Your task to perform on an android device: Open settings on Google Maps Image 0: 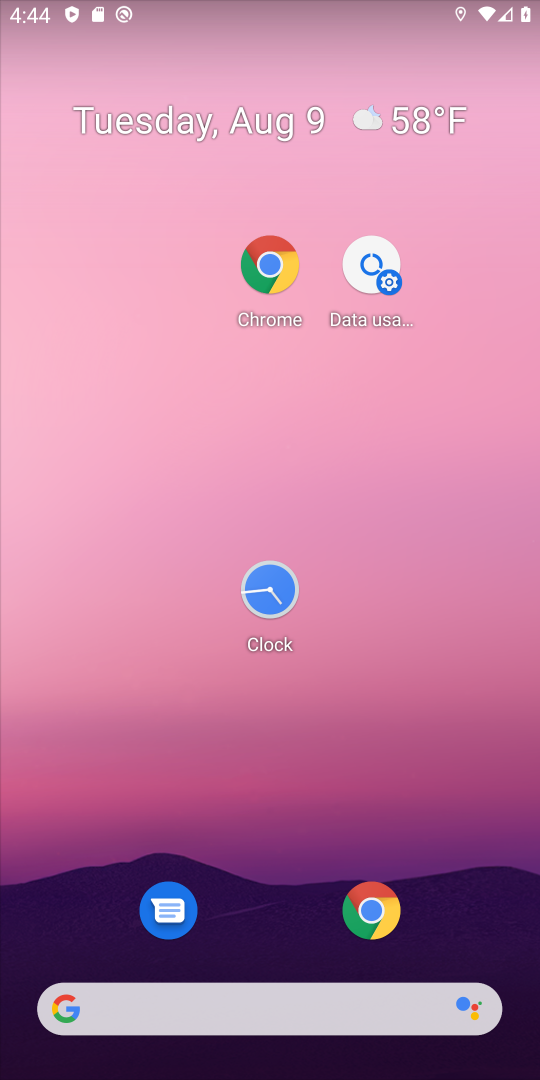
Step 0: click (270, 321)
Your task to perform on an android device: Open settings on Google Maps Image 1: 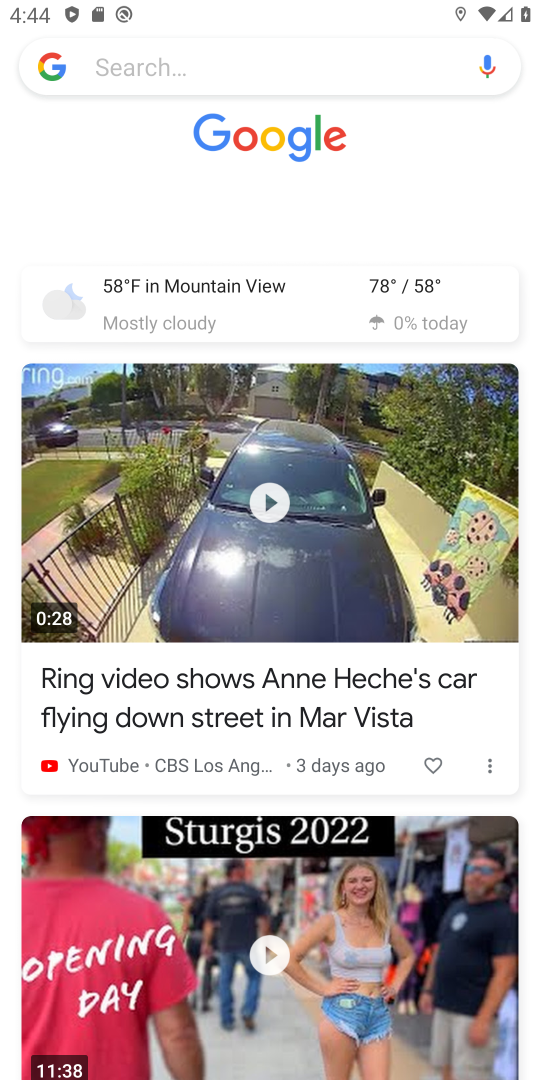
Step 1: press back button
Your task to perform on an android device: Open settings on Google Maps Image 2: 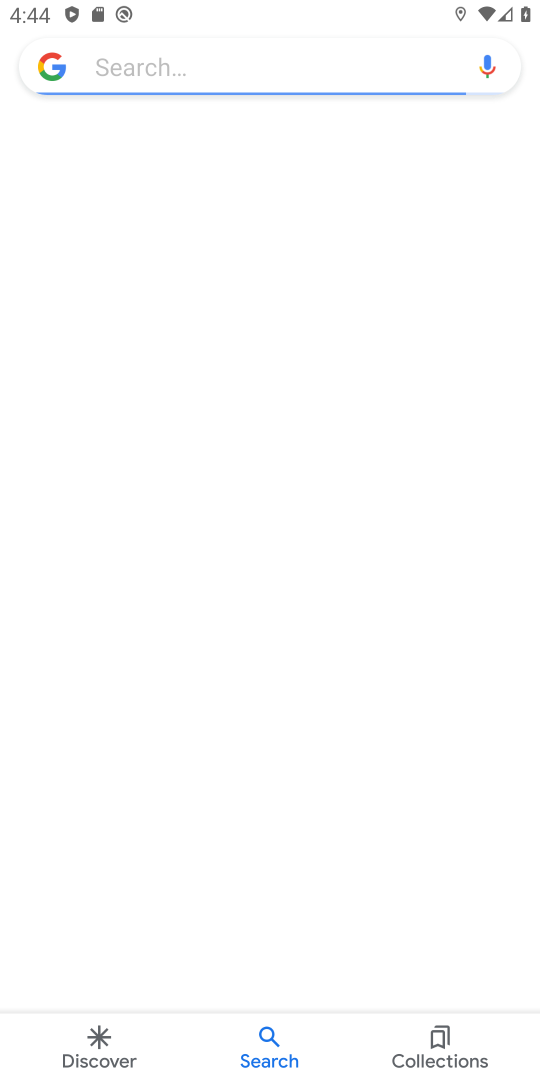
Step 2: press back button
Your task to perform on an android device: Open settings on Google Maps Image 3: 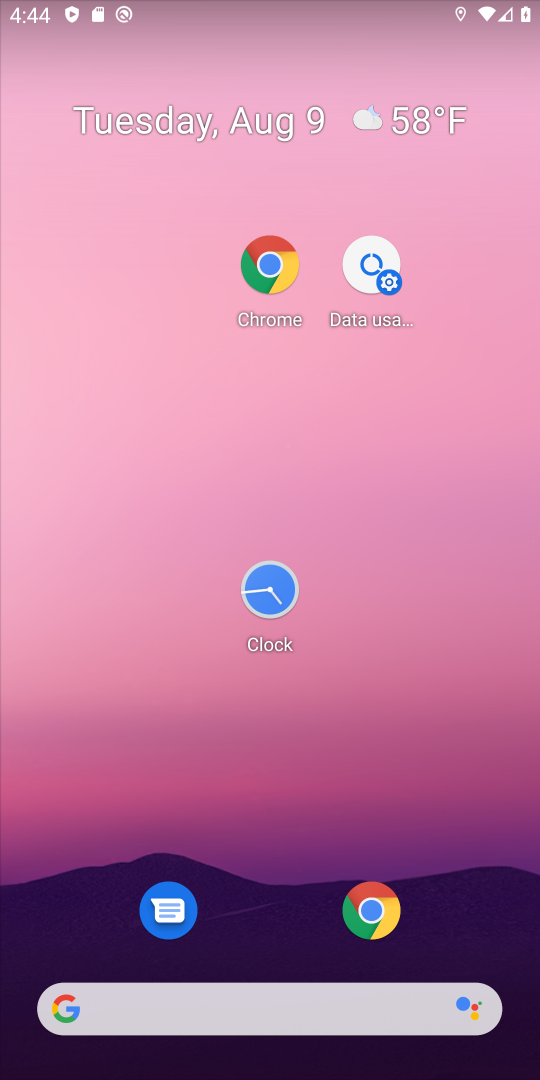
Step 3: press home button
Your task to perform on an android device: Open settings on Google Maps Image 4: 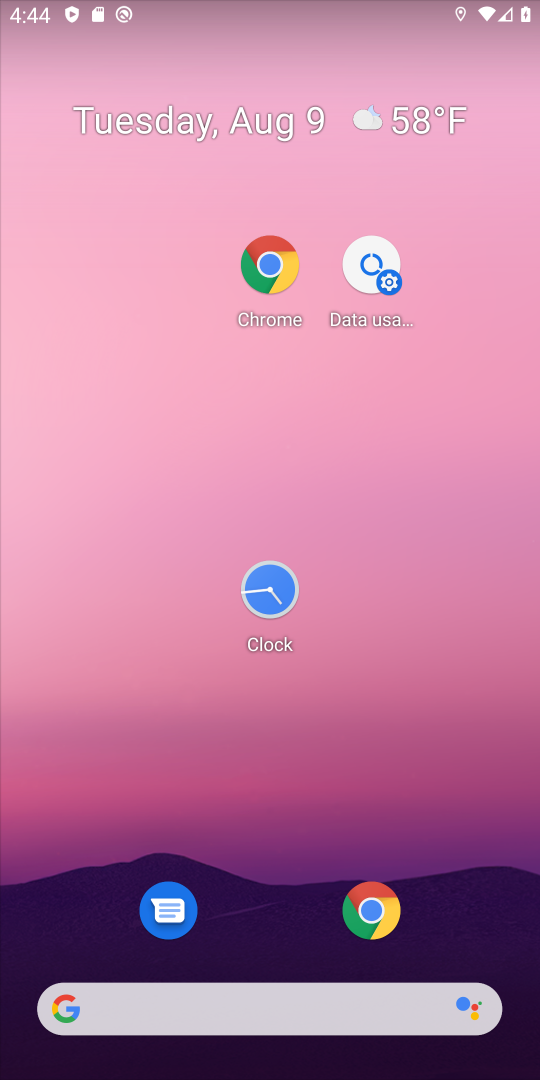
Step 4: drag from (333, 943) to (281, 309)
Your task to perform on an android device: Open settings on Google Maps Image 5: 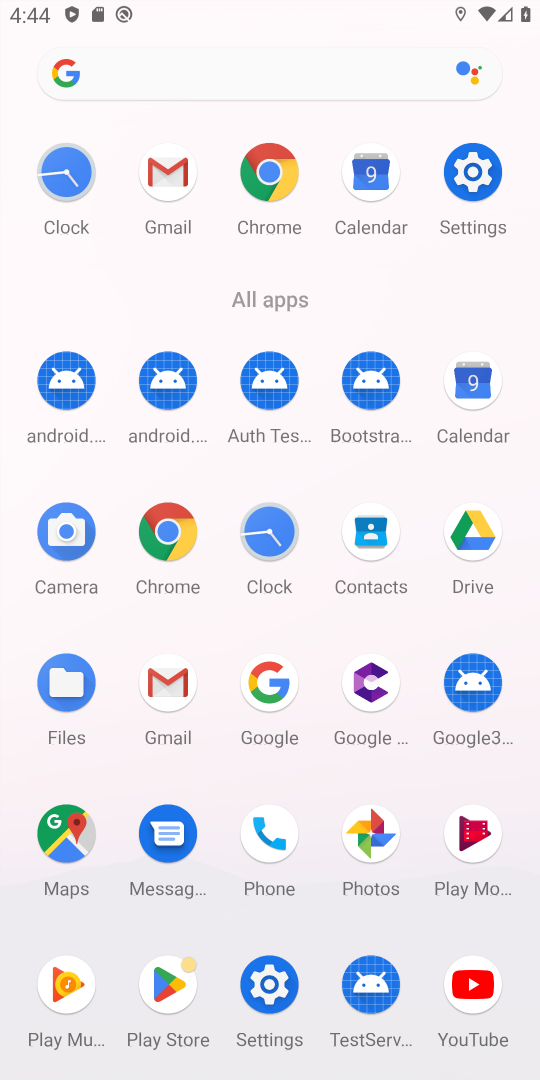
Step 5: click (59, 812)
Your task to perform on an android device: Open settings on Google Maps Image 6: 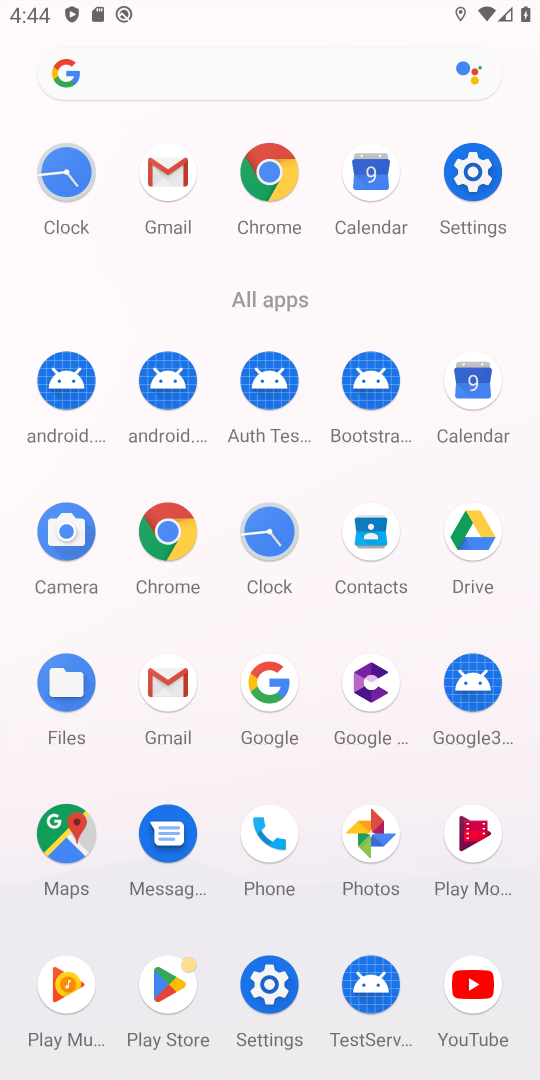
Step 6: click (58, 813)
Your task to perform on an android device: Open settings on Google Maps Image 7: 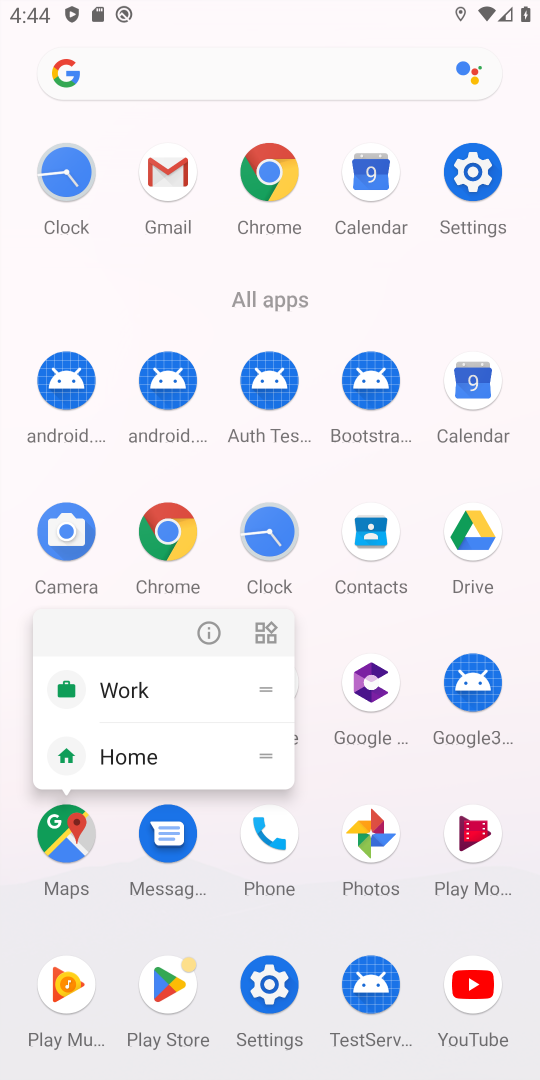
Step 7: click (95, 831)
Your task to perform on an android device: Open settings on Google Maps Image 8: 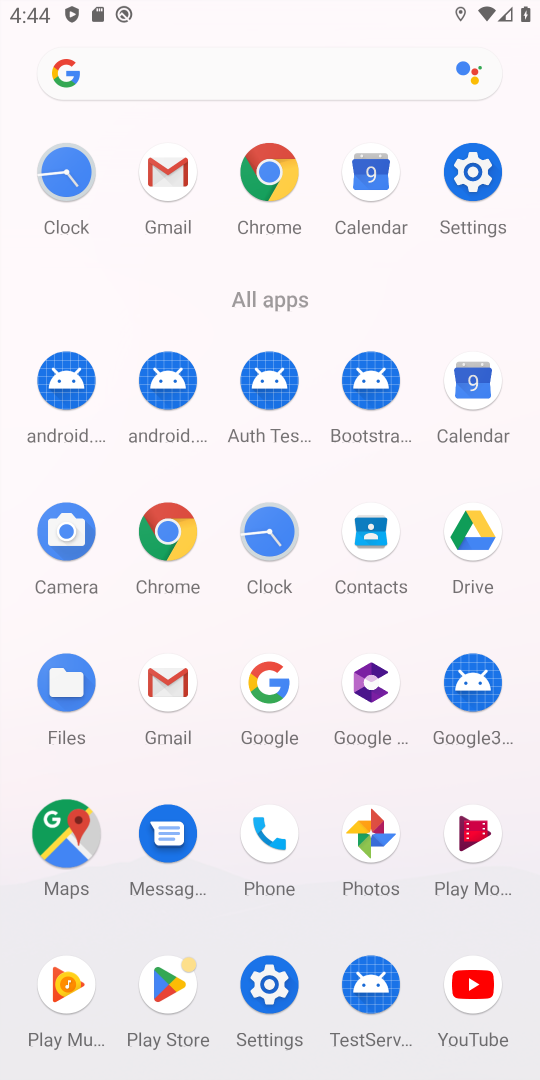
Step 8: click (91, 831)
Your task to perform on an android device: Open settings on Google Maps Image 9: 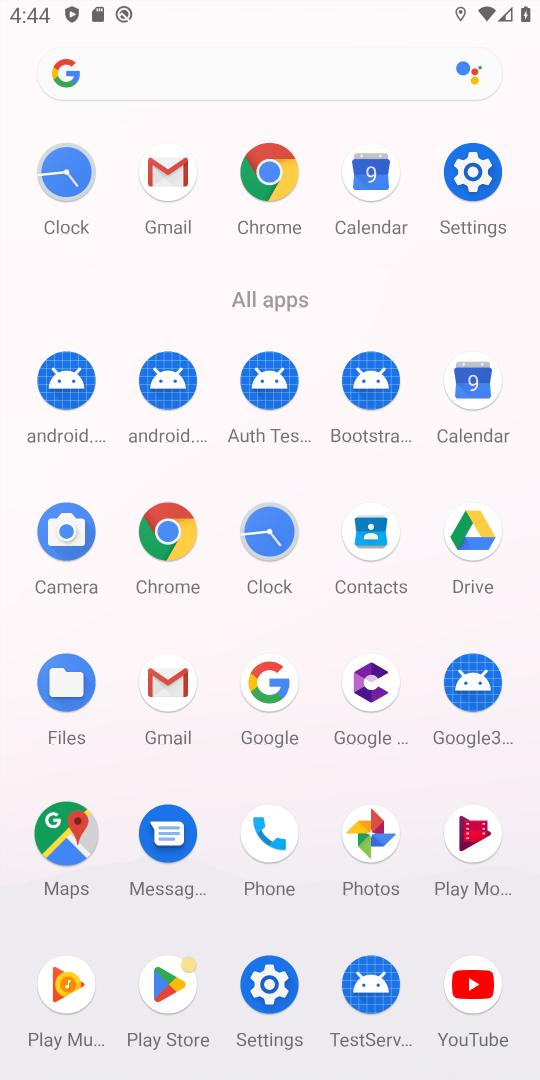
Step 9: click (88, 833)
Your task to perform on an android device: Open settings on Google Maps Image 10: 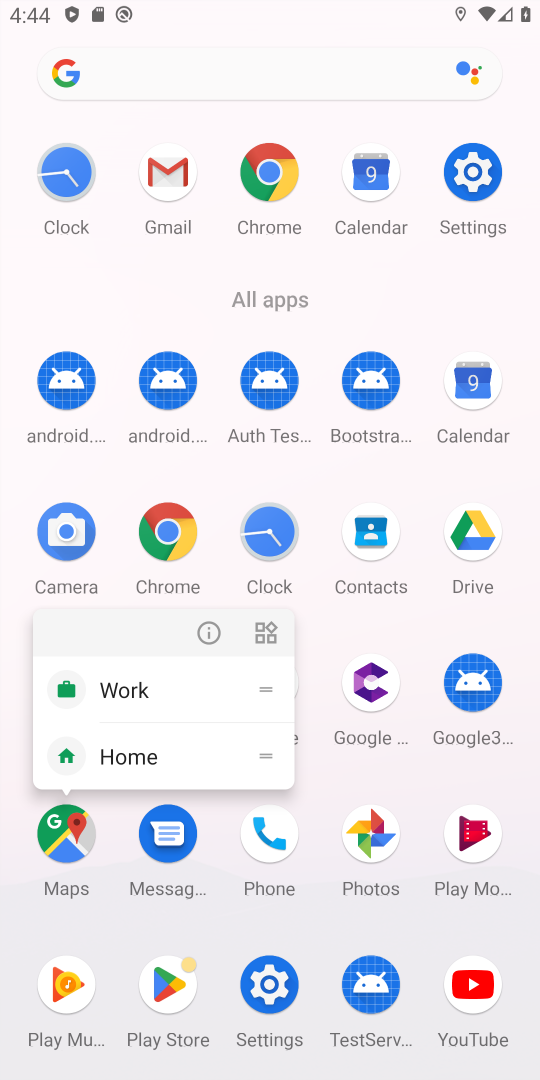
Step 10: click (88, 833)
Your task to perform on an android device: Open settings on Google Maps Image 11: 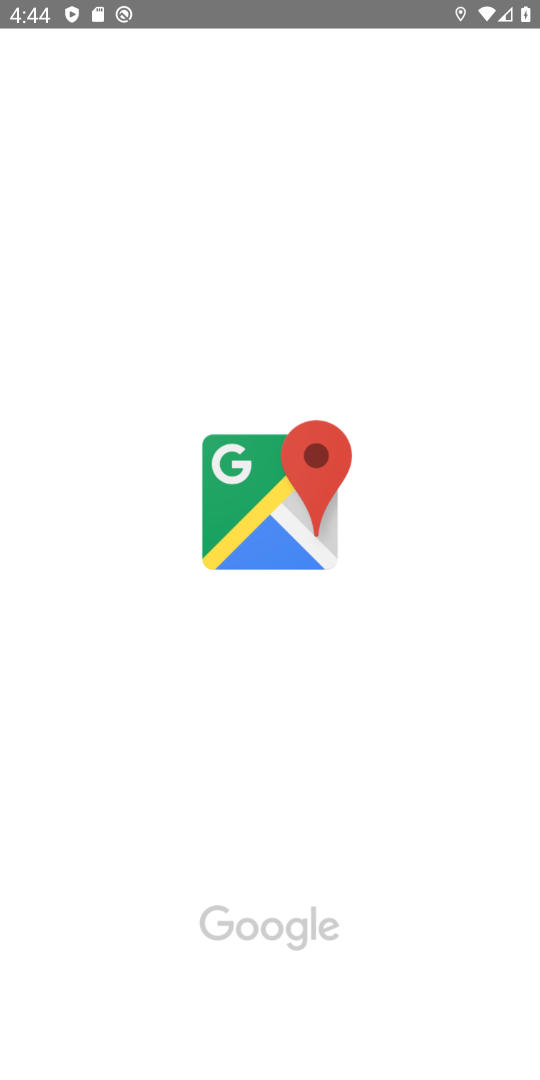
Step 11: click (88, 829)
Your task to perform on an android device: Open settings on Google Maps Image 12: 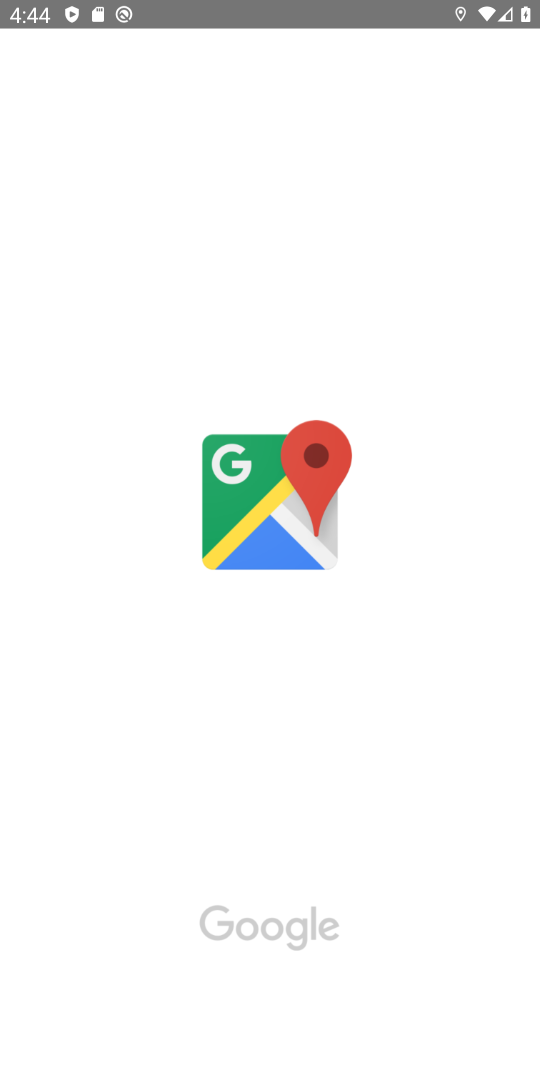
Step 12: click (315, 498)
Your task to perform on an android device: Open settings on Google Maps Image 13: 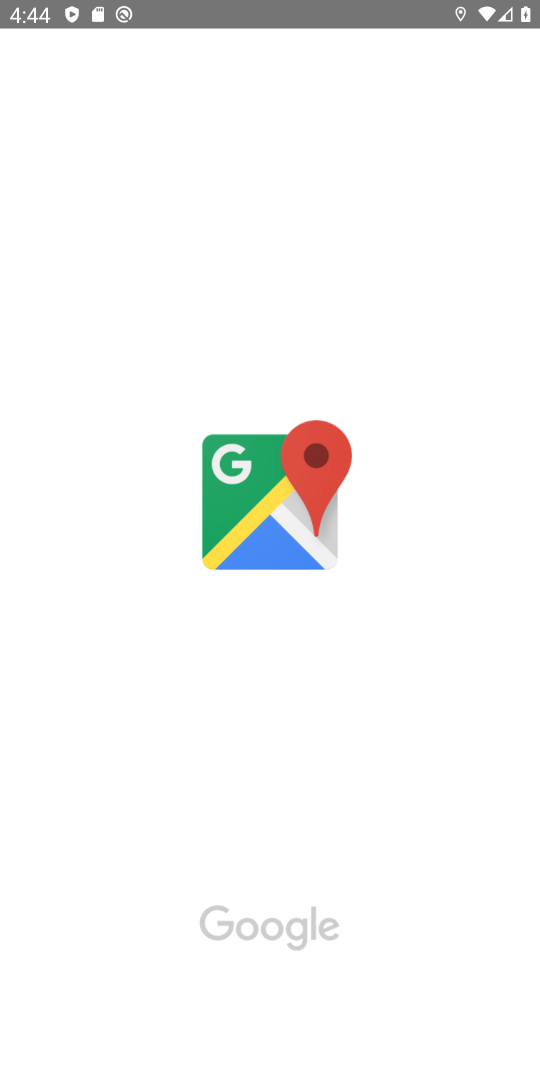
Step 13: click (311, 495)
Your task to perform on an android device: Open settings on Google Maps Image 14: 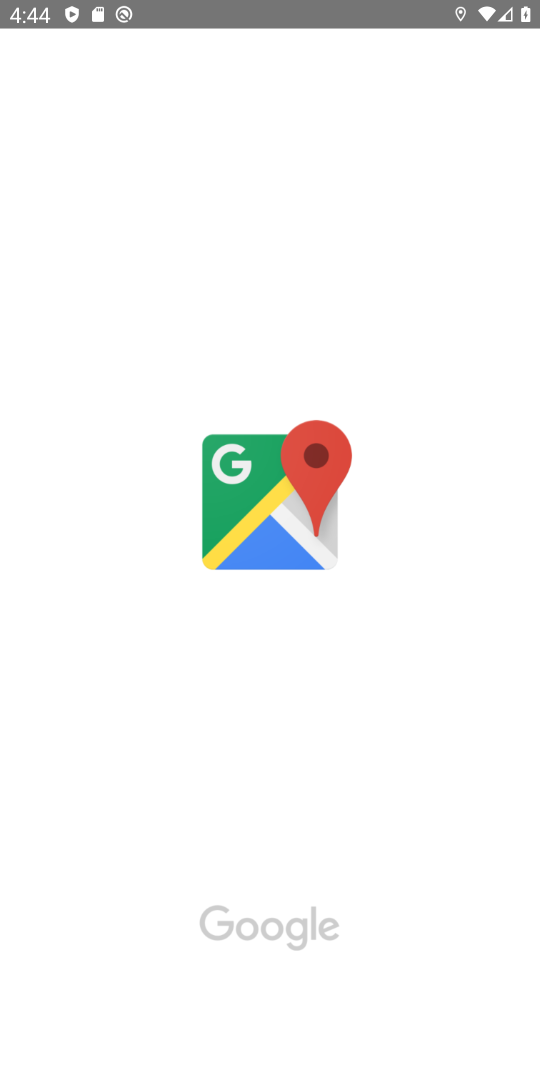
Step 14: click (311, 495)
Your task to perform on an android device: Open settings on Google Maps Image 15: 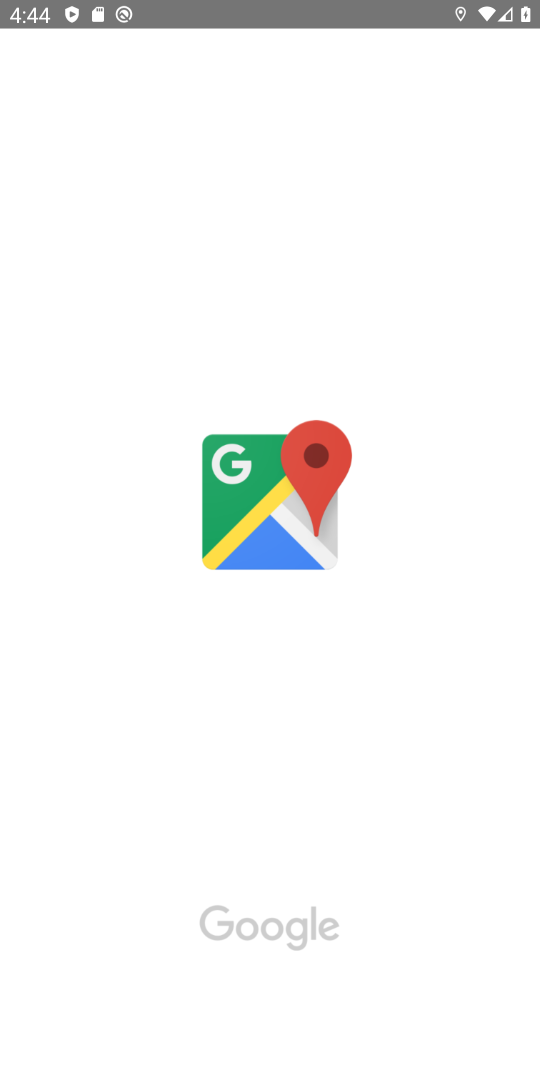
Step 15: click (258, 510)
Your task to perform on an android device: Open settings on Google Maps Image 16: 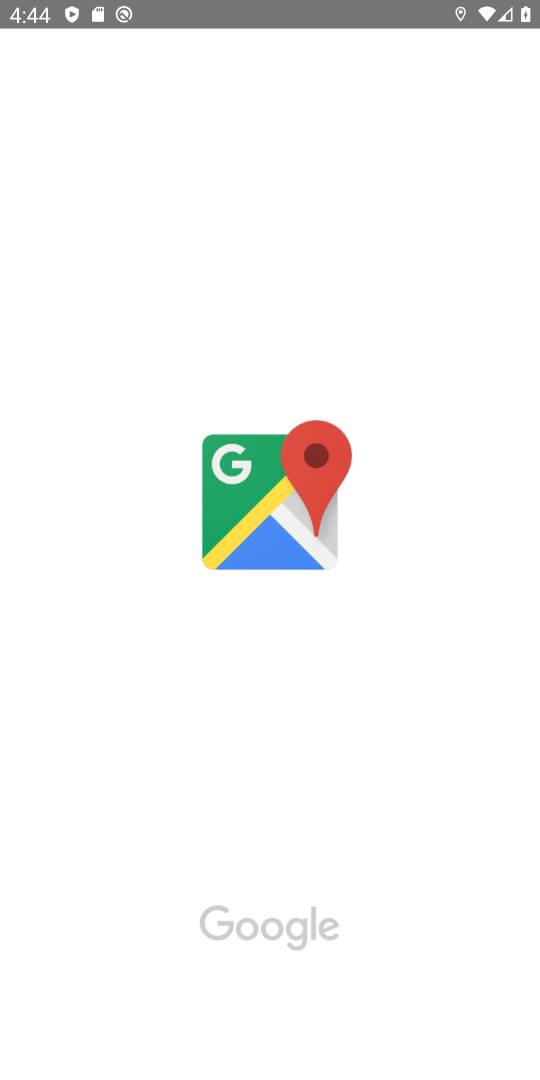
Step 16: click (300, 503)
Your task to perform on an android device: Open settings on Google Maps Image 17: 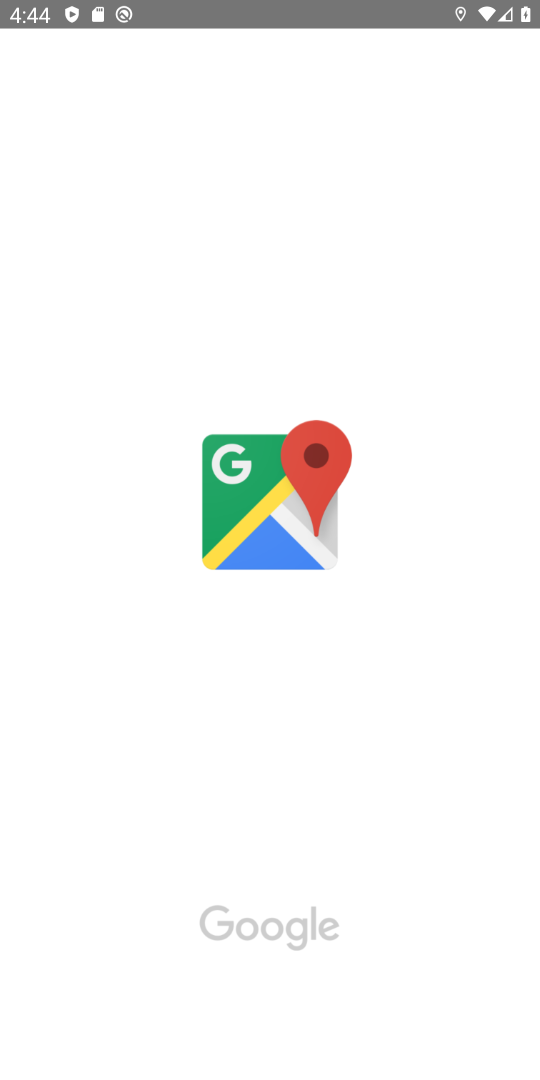
Step 17: click (296, 500)
Your task to perform on an android device: Open settings on Google Maps Image 18: 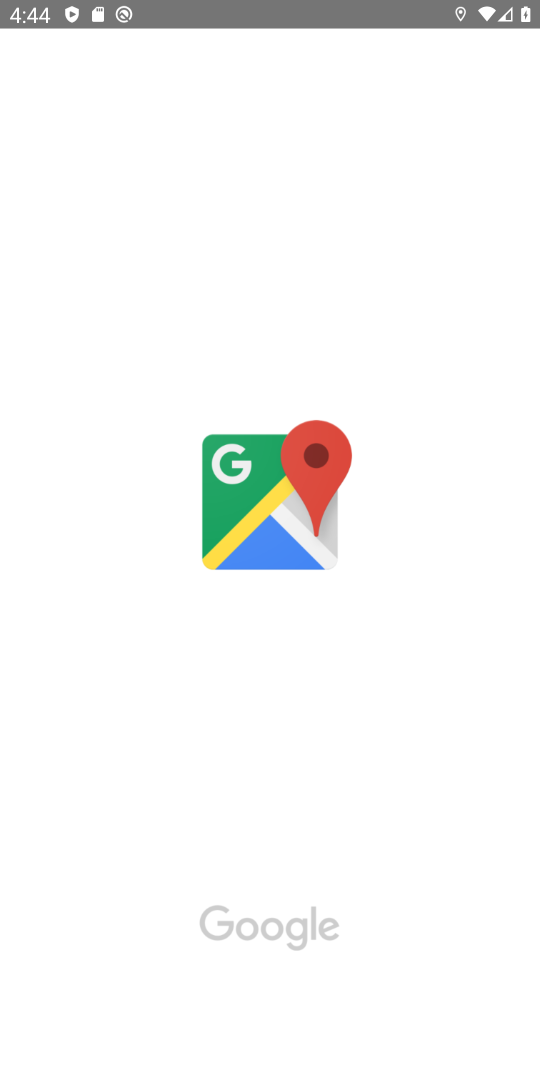
Step 18: click (260, 484)
Your task to perform on an android device: Open settings on Google Maps Image 19: 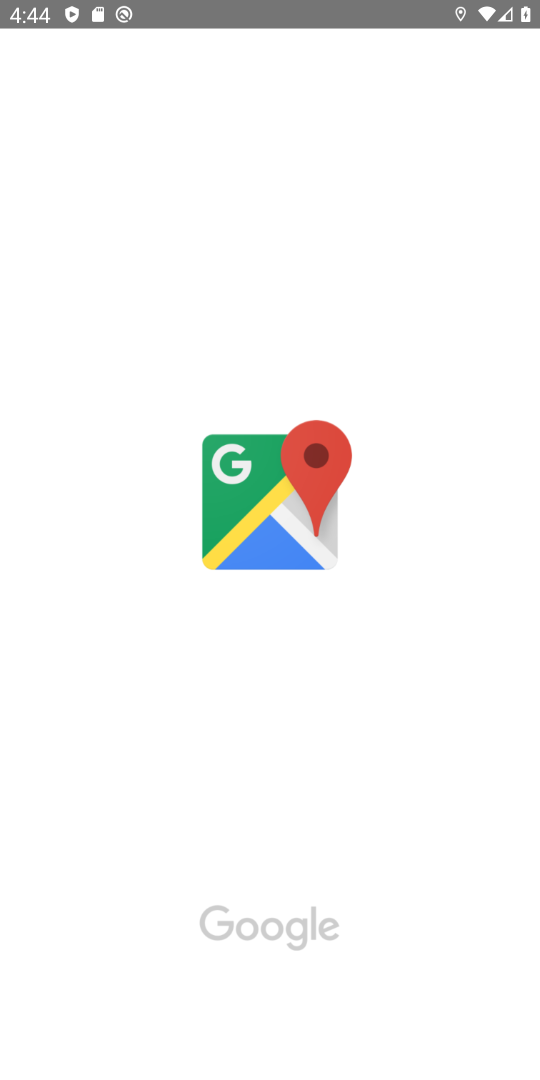
Step 19: task complete